Your task to perform on an android device: Open Chrome and go to settings Image 0: 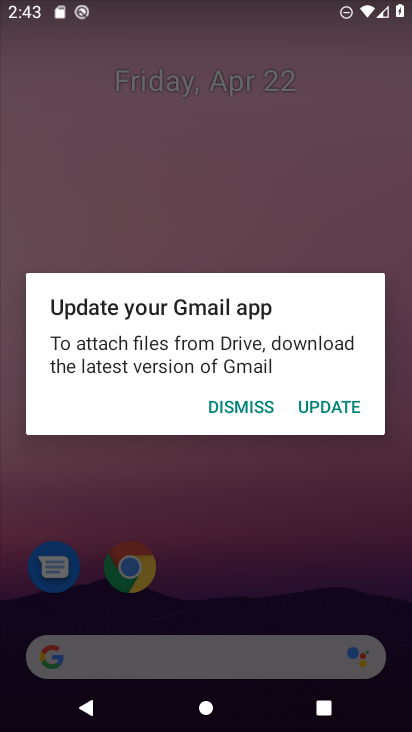
Step 0: press home button
Your task to perform on an android device: Open Chrome and go to settings Image 1: 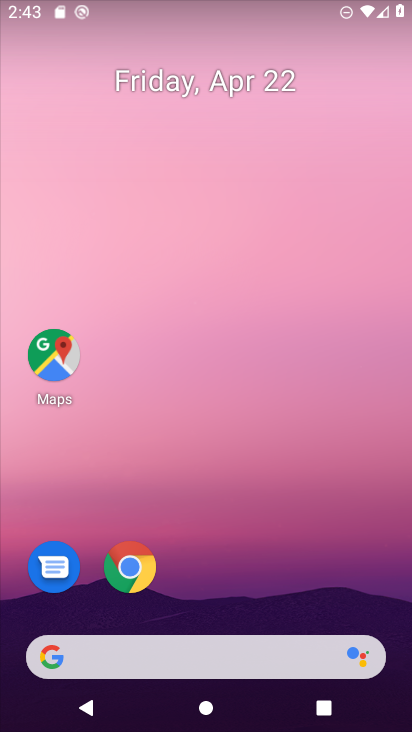
Step 1: click (136, 565)
Your task to perform on an android device: Open Chrome and go to settings Image 2: 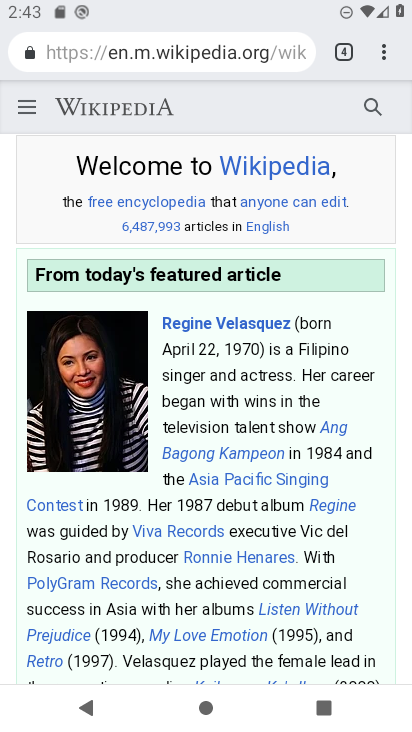
Step 2: click (389, 58)
Your task to perform on an android device: Open Chrome and go to settings Image 3: 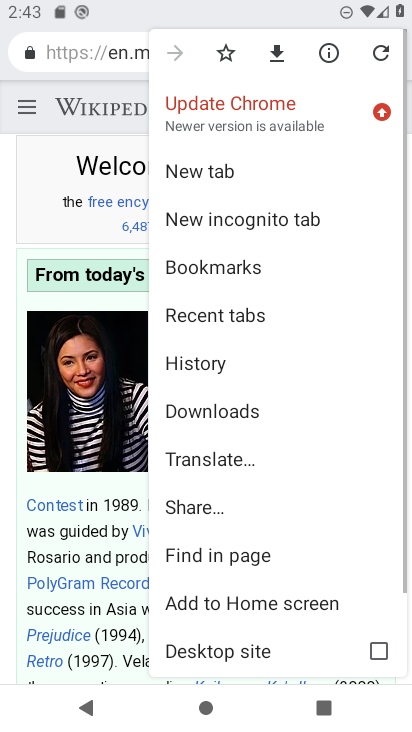
Step 3: drag from (300, 581) to (323, 136)
Your task to perform on an android device: Open Chrome and go to settings Image 4: 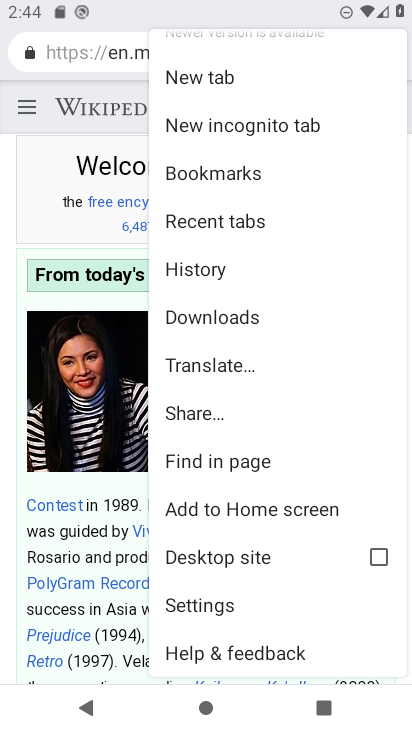
Step 4: click (240, 600)
Your task to perform on an android device: Open Chrome and go to settings Image 5: 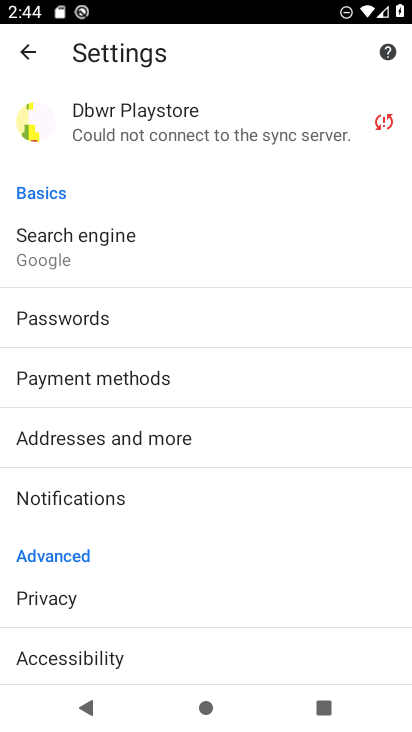
Step 5: task complete